Your task to perform on an android device: Open Wikipedia Image 0: 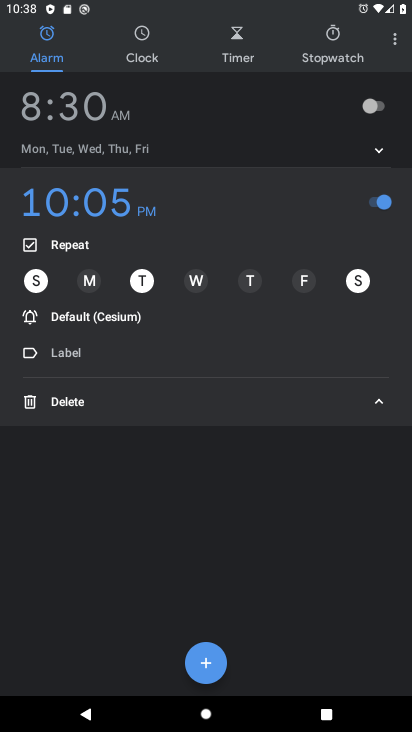
Step 0: press home button
Your task to perform on an android device: Open Wikipedia Image 1: 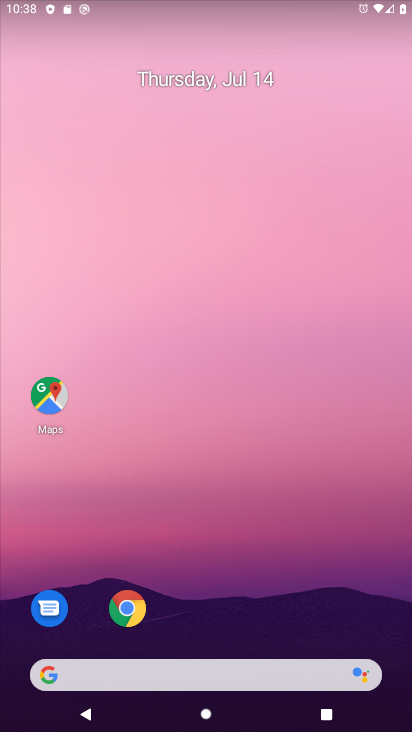
Step 1: click (138, 612)
Your task to perform on an android device: Open Wikipedia Image 2: 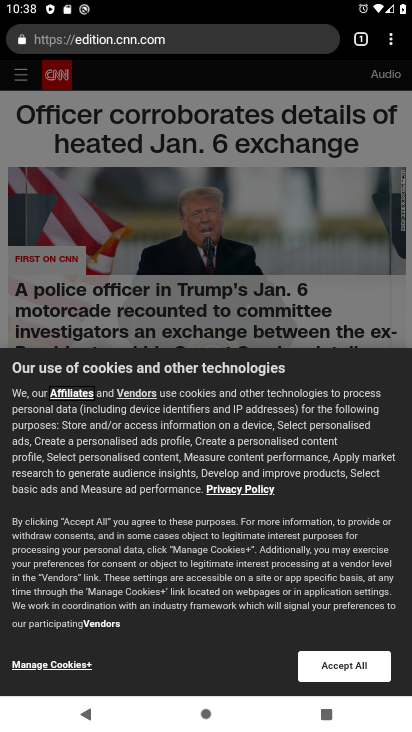
Step 2: click (173, 41)
Your task to perform on an android device: Open Wikipedia Image 3: 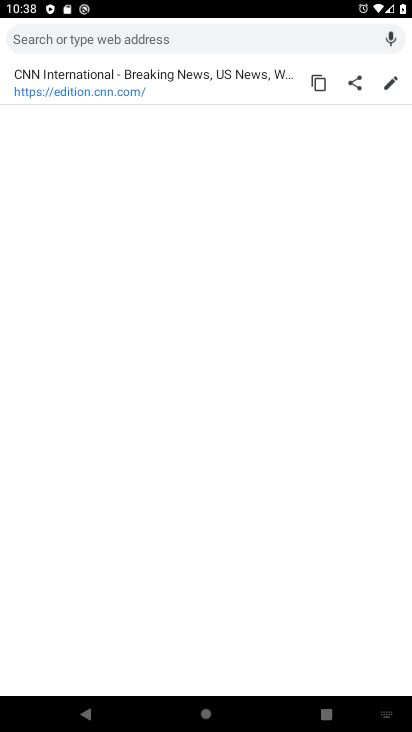
Step 3: type "wikipedia"
Your task to perform on an android device: Open Wikipedia Image 4: 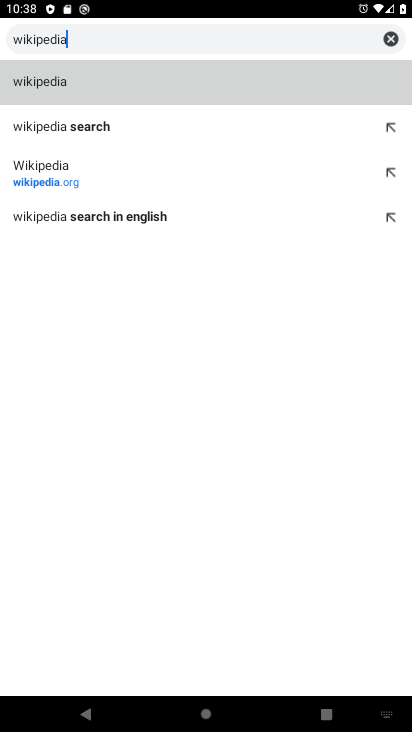
Step 4: click (77, 180)
Your task to perform on an android device: Open Wikipedia Image 5: 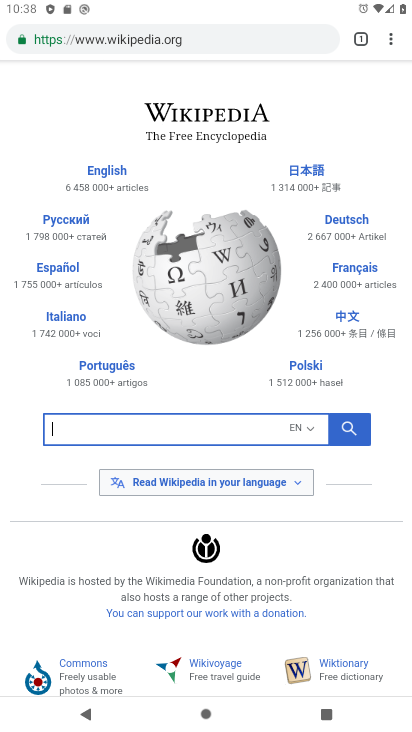
Step 5: task complete